Your task to perform on an android device: Open display settings Image 0: 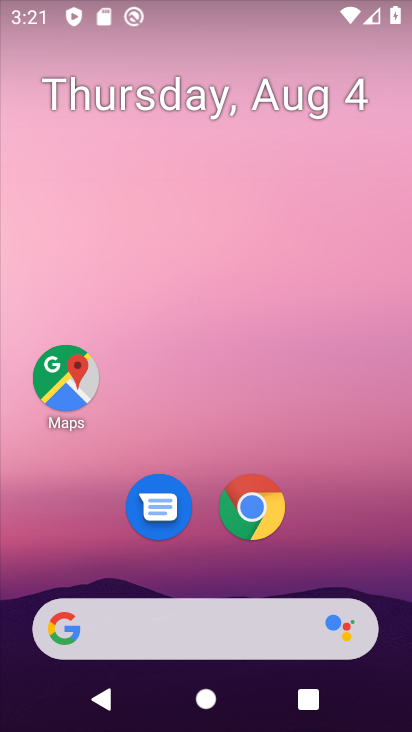
Step 0: drag from (70, 585) to (237, 7)
Your task to perform on an android device: Open display settings Image 1: 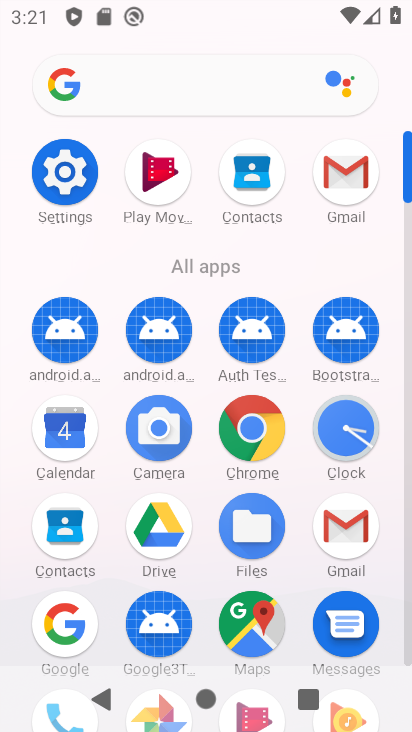
Step 1: drag from (199, 431) to (238, 152)
Your task to perform on an android device: Open display settings Image 2: 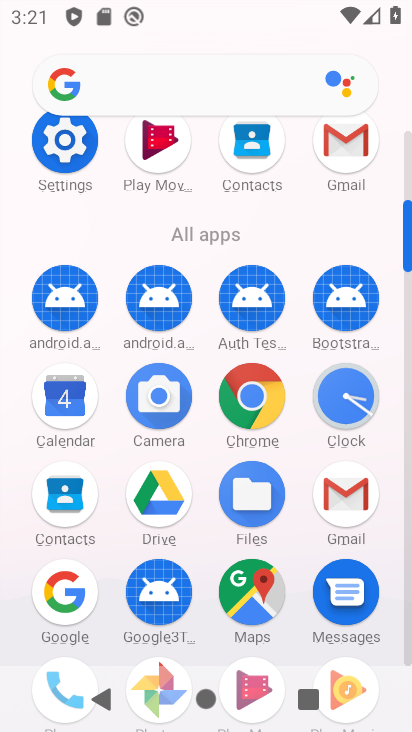
Step 2: drag from (191, 547) to (193, 294)
Your task to perform on an android device: Open display settings Image 3: 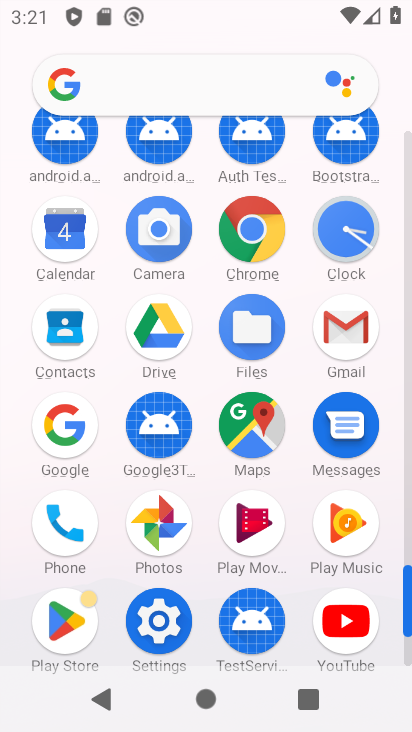
Step 3: click (169, 631)
Your task to perform on an android device: Open display settings Image 4: 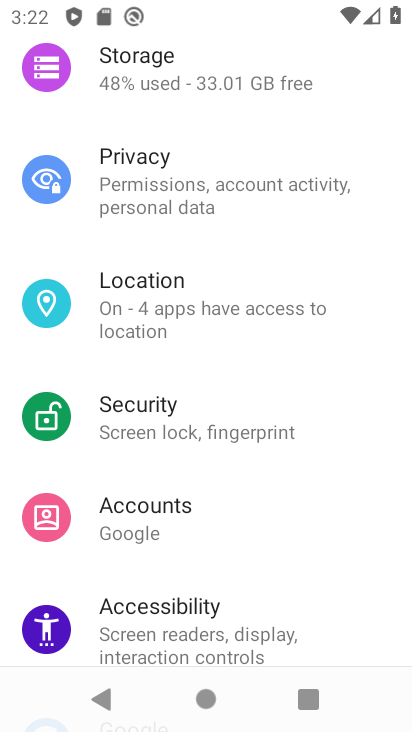
Step 4: drag from (295, 104) to (272, 649)
Your task to perform on an android device: Open display settings Image 5: 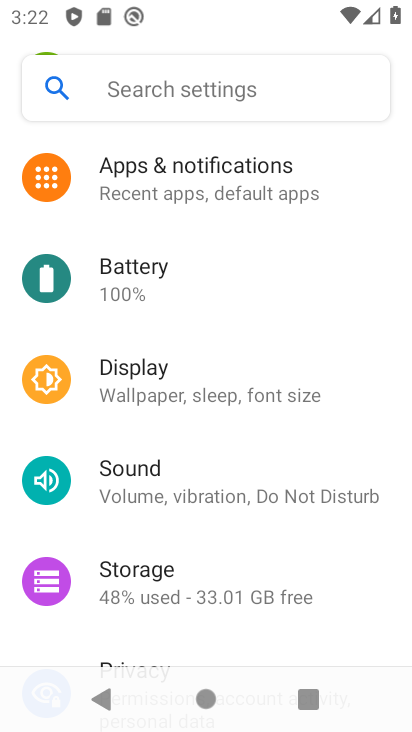
Step 5: drag from (232, 514) to (232, 264)
Your task to perform on an android device: Open display settings Image 6: 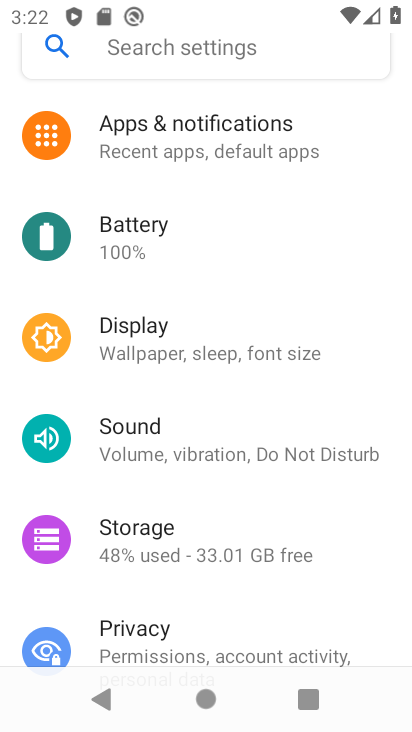
Step 6: click (160, 319)
Your task to perform on an android device: Open display settings Image 7: 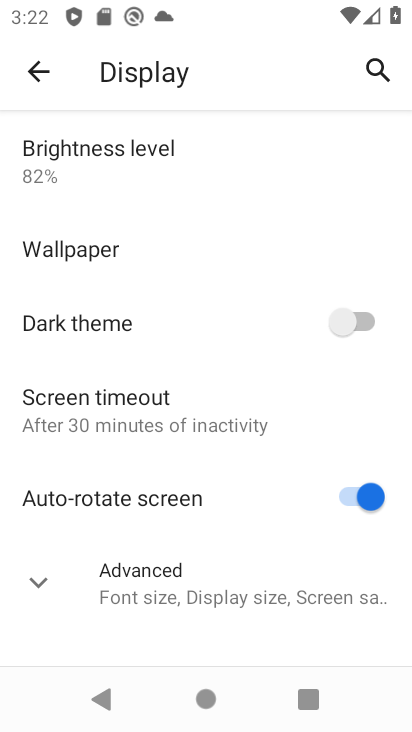
Step 7: task complete